Your task to perform on an android device: Open Google Chrome and click the shortcut for Amazon.com Image 0: 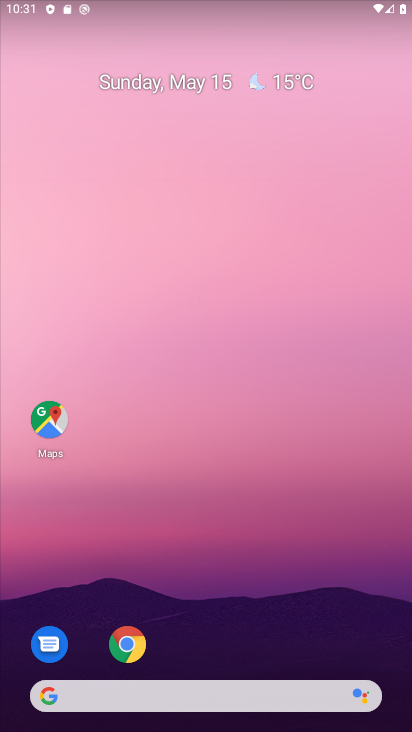
Step 0: click (135, 642)
Your task to perform on an android device: Open Google Chrome and click the shortcut for Amazon.com Image 1: 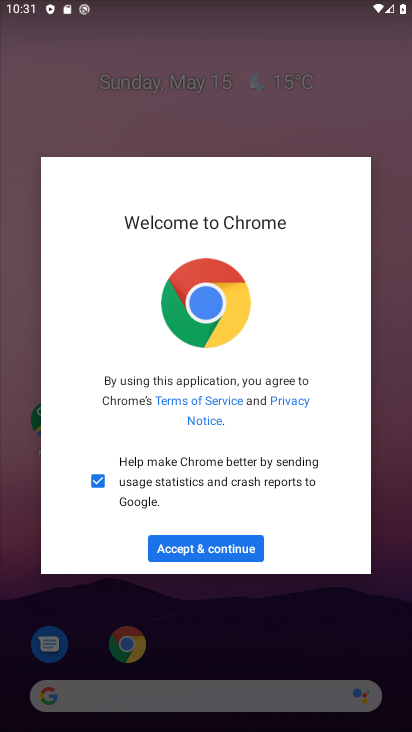
Step 1: click (219, 545)
Your task to perform on an android device: Open Google Chrome and click the shortcut for Amazon.com Image 2: 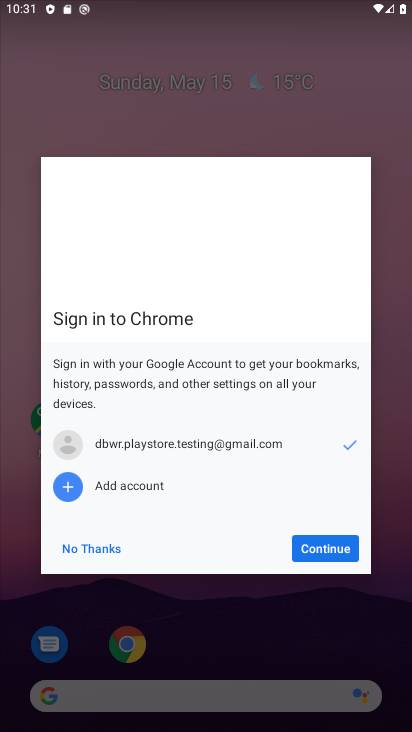
Step 2: click (323, 553)
Your task to perform on an android device: Open Google Chrome and click the shortcut for Amazon.com Image 3: 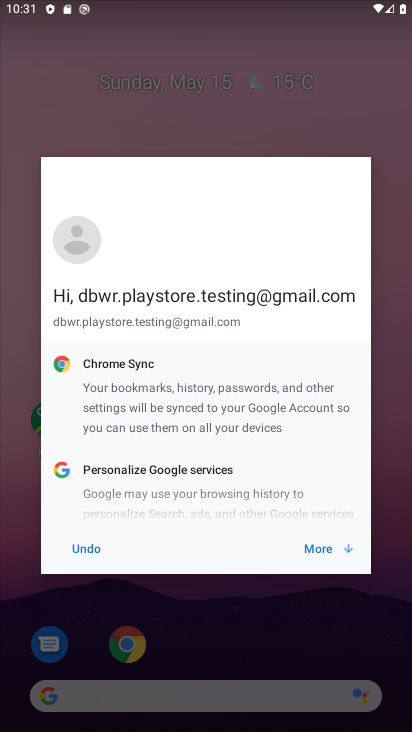
Step 3: click (325, 553)
Your task to perform on an android device: Open Google Chrome and click the shortcut for Amazon.com Image 4: 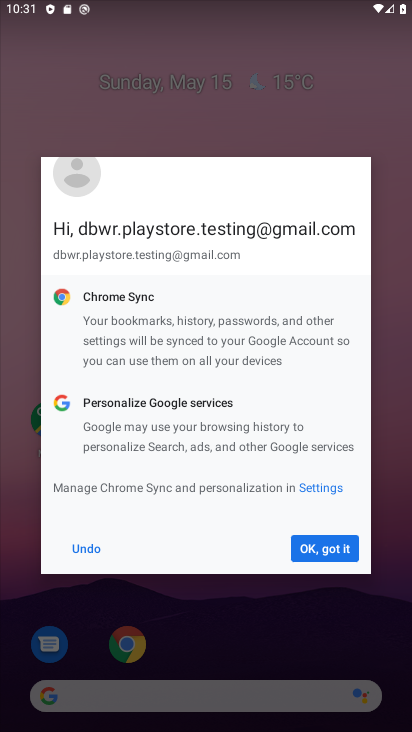
Step 4: click (314, 551)
Your task to perform on an android device: Open Google Chrome and click the shortcut for Amazon.com Image 5: 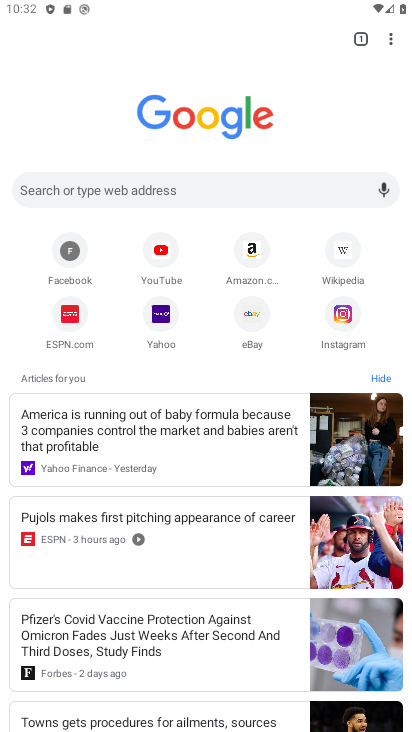
Step 5: click (255, 252)
Your task to perform on an android device: Open Google Chrome and click the shortcut for Amazon.com Image 6: 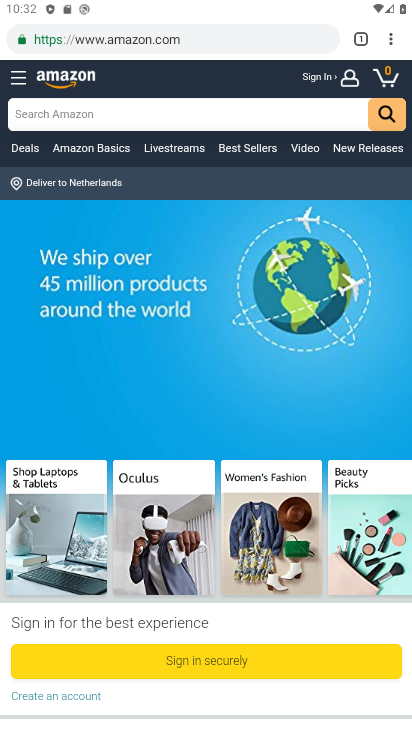
Step 6: task complete